Your task to perform on an android device: What is the recent news? Image 0: 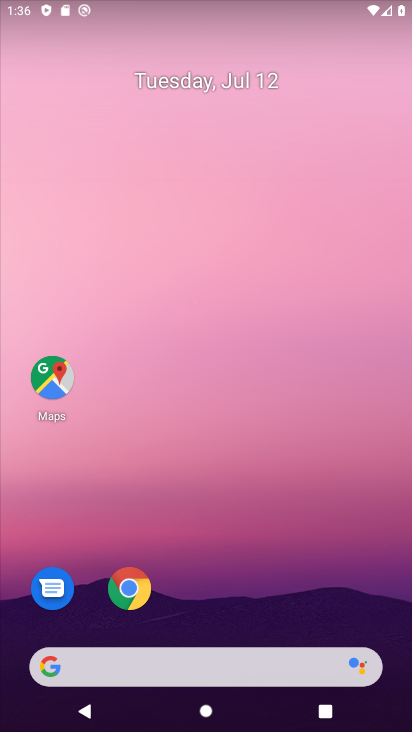
Step 0: click (141, 665)
Your task to perform on an android device: What is the recent news? Image 1: 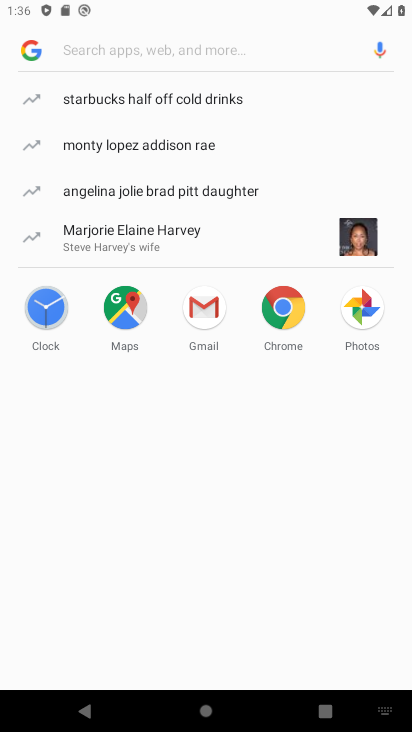
Step 1: click (35, 41)
Your task to perform on an android device: What is the recent news? Image 2: 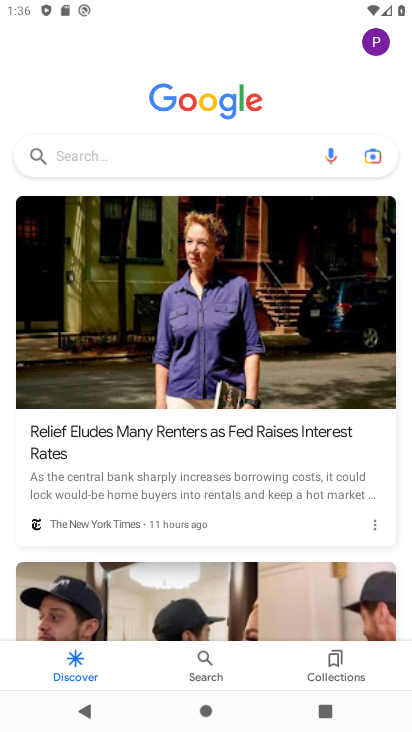
Step 2: task complete